Your task to perform on an android device: open a new tab in the chrome app Image 0: 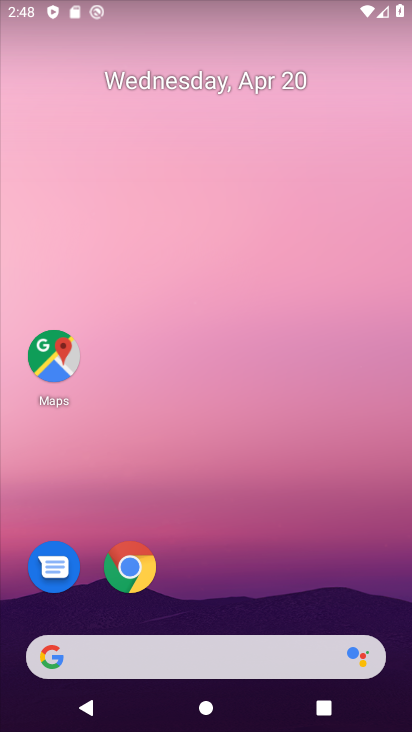
Step 0: click (136, 562)
Your task to perform on an android device: open a new tab in the chrome app Image 1: 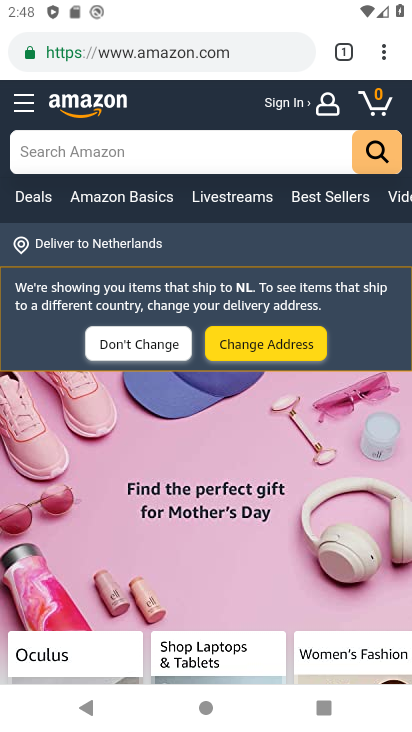
Step 1: click (388, 53)
Your task to perform on an android device: open a new tab in the chrome app Image 2: 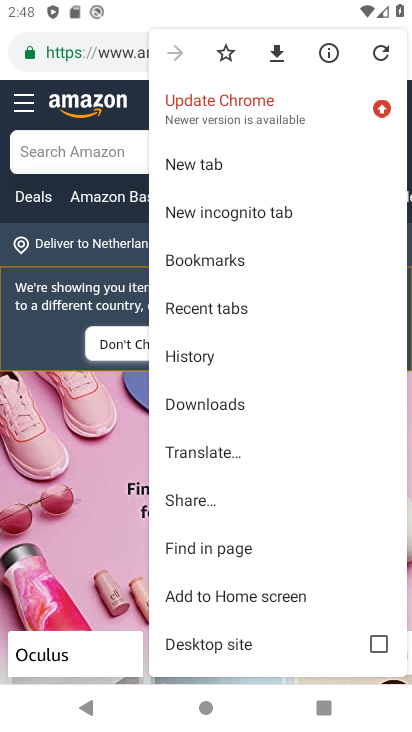
Step 2: click (231, 165)
Your task to perform on an android device: open a new tab in the chrome app Image 3: 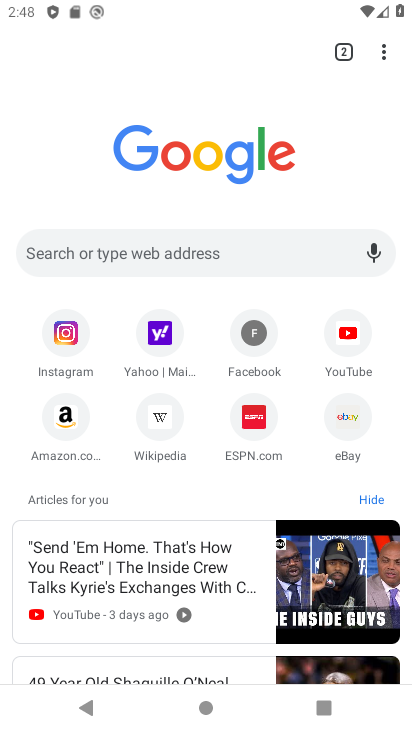
Step 3: task complete